Your task to perform on an android device: toggle wifi Image 0: 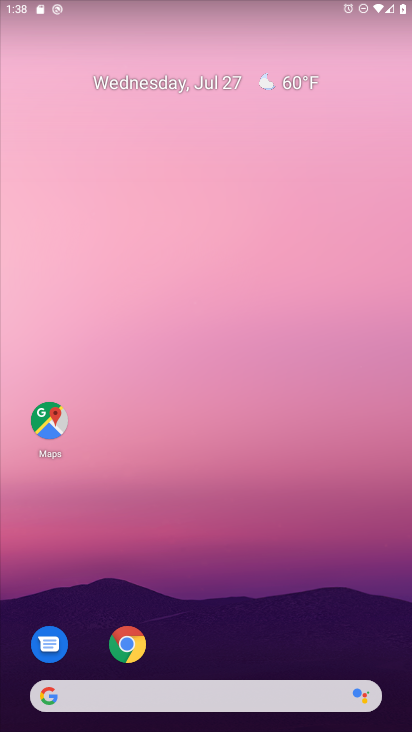
Step 0: drag from (169, 655) to (199, 198)
Your task to perform on an android device: toggle wifi Image 1: 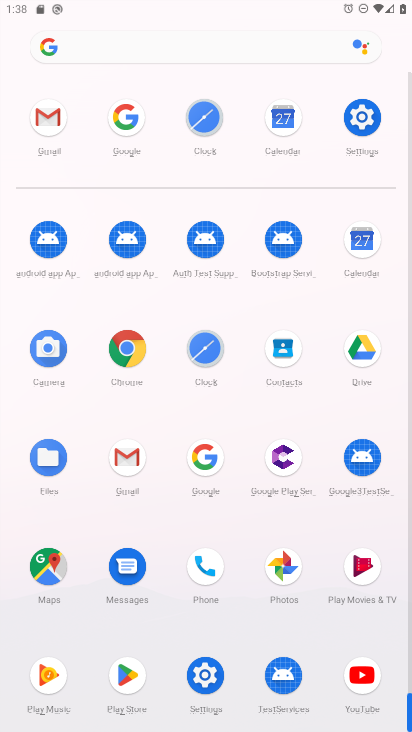
Step 1: click (249, 204)
Your task to perform on an android device: toggle wifi Image 2: 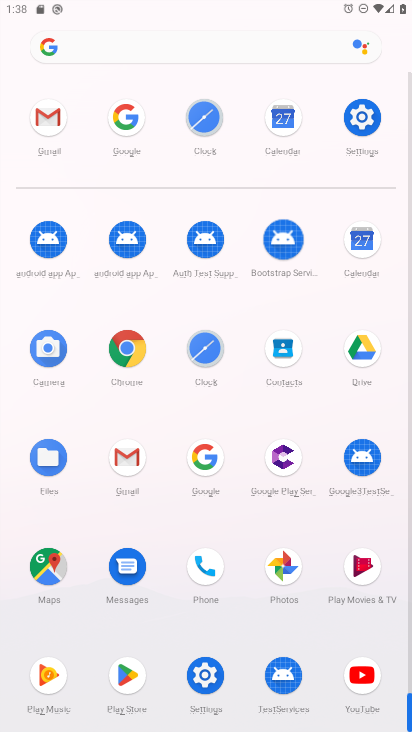
Step 2: drag from (236, 289) to (260, 196)
Your task to perform on an android device: toggle wifi Image 3: 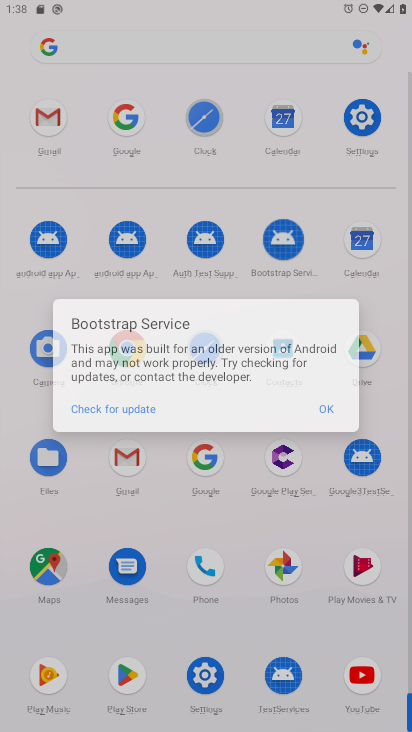
Step 3: drag from (198, 560) to (288, 159)
Your task to perform on an android device: toggle wifi Image 4: 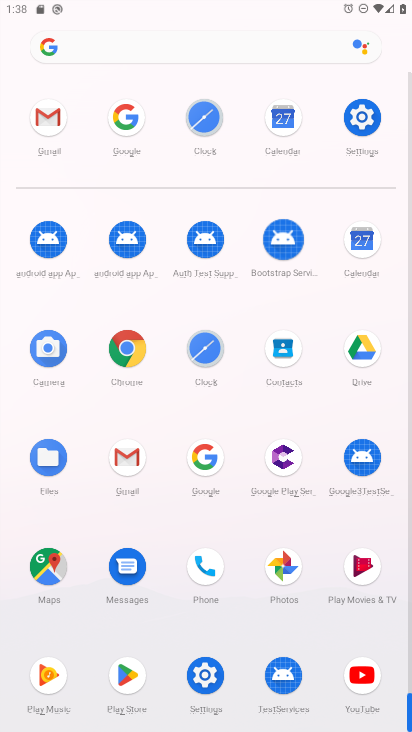
Step 4: drag from (208, 548) to (270, 260)
Your task to perform on an android device: toggle wifi Image 5: 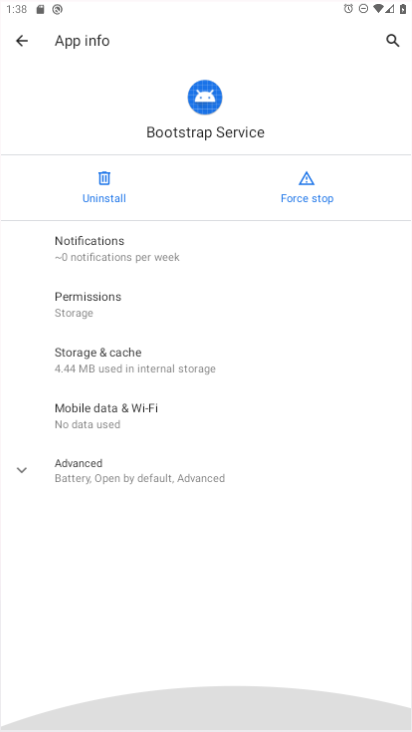
Step 5: drag from (240, 531) to (386, 99)
Your task to perform on an android device: toggle wifi Image 6: 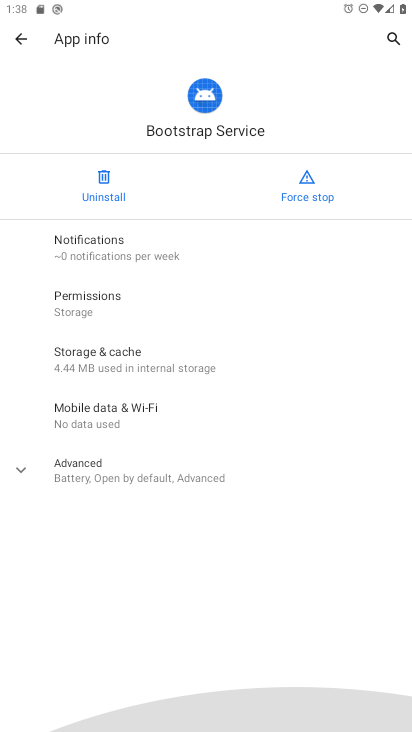
Step 6: drag from (227, 554) to (227, 132)
Your task to perform on an android device: toggle wifi Image 7: 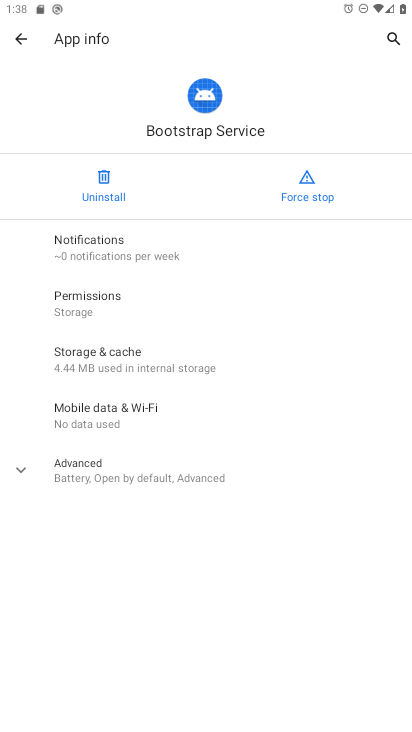
Step 7: drag from (259, 603) to (259, 328)
Your task to perform on an android device: toggle wifi Image 8: 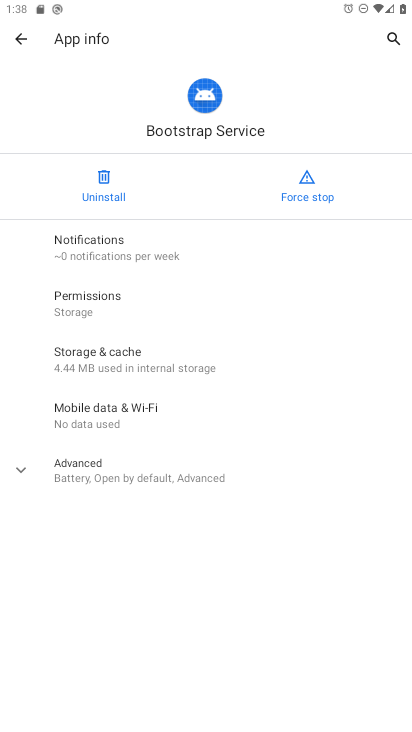
Step 8: click (26, 36)
Your task to perform on an android device: toggle wifi Image 9: 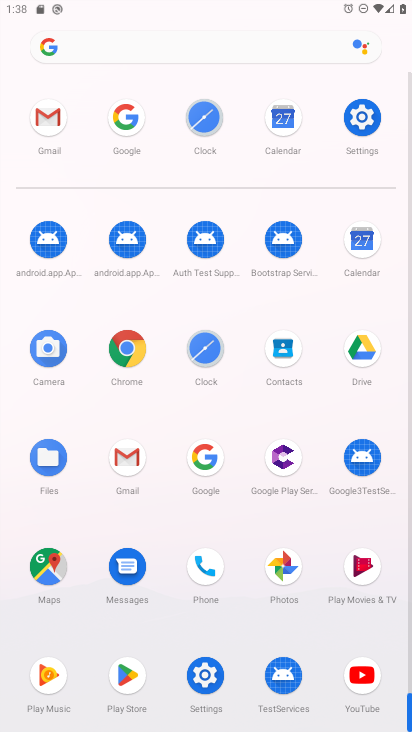
Step 9: click (368, 123)
Your task to perform on an android device: toggle wifi Image 10: 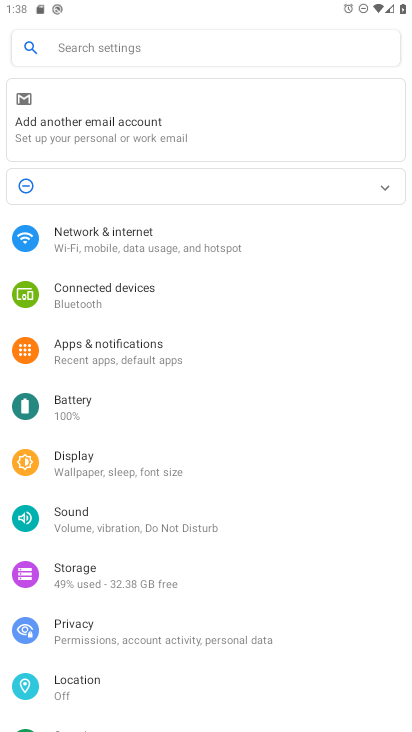
Step 10: click (114, 234)
Your task to perform on an android device: toggle wifi Image 11: 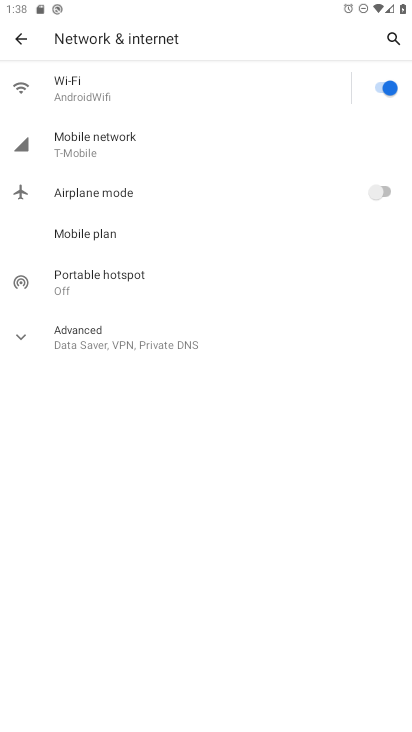
Step 11: click (115, 101)
Your task to perform on an android device: toggle wifi Image 12: 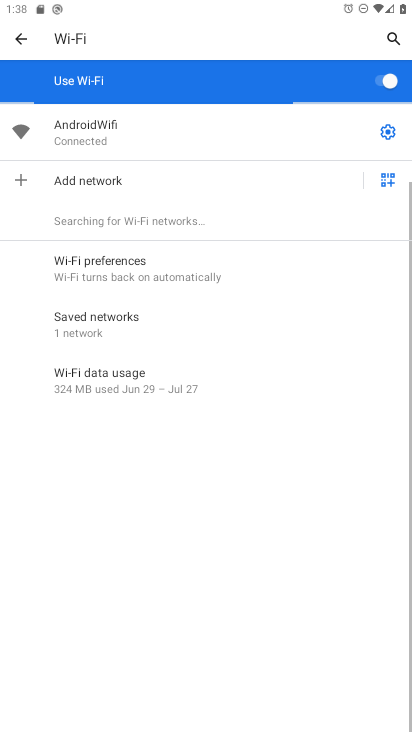
Step 12: task complete